Your task to perform on an android device: Open Youtube and go to the subscriptions tab Image 0: 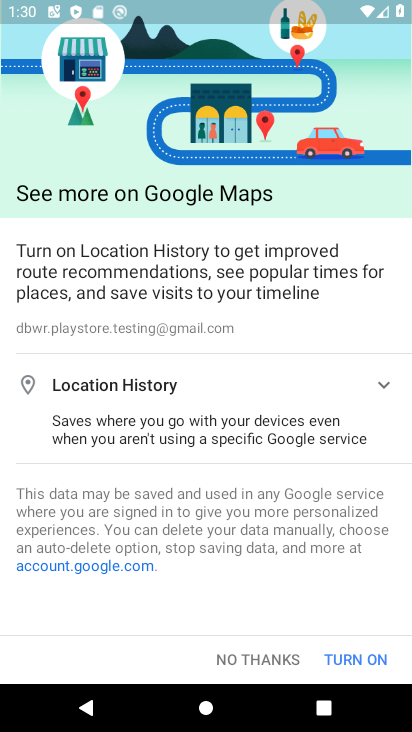
Step 0: press home button
Your task to perform on an android device: Open Youtube and go to the subscriptions tab Image 1: 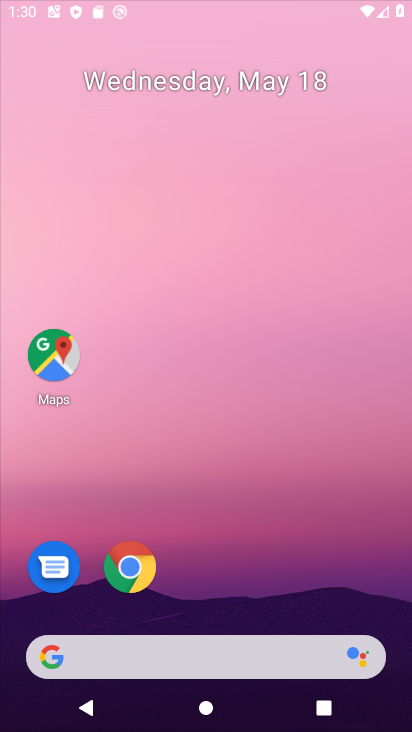
Step 1: click (312, 148)
Your task to perform on an android device: Open Youtube and go to the subscriptions tab Image 2: 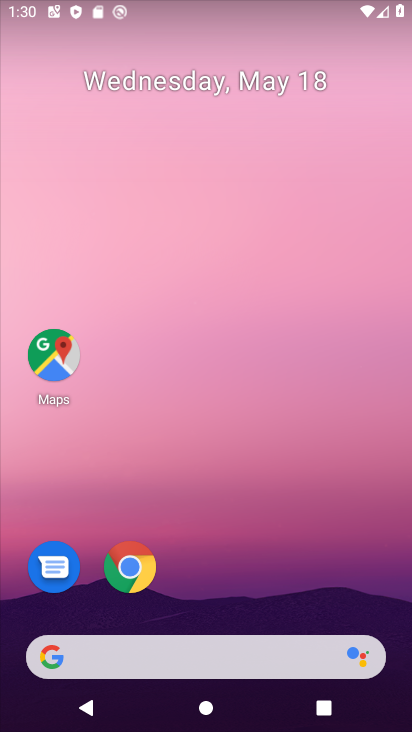
Step 2: drag from (273, 608) to (362, 161)
Your task to perform on an android device: Open Youtube and go to the subscriptions tab Image 3: 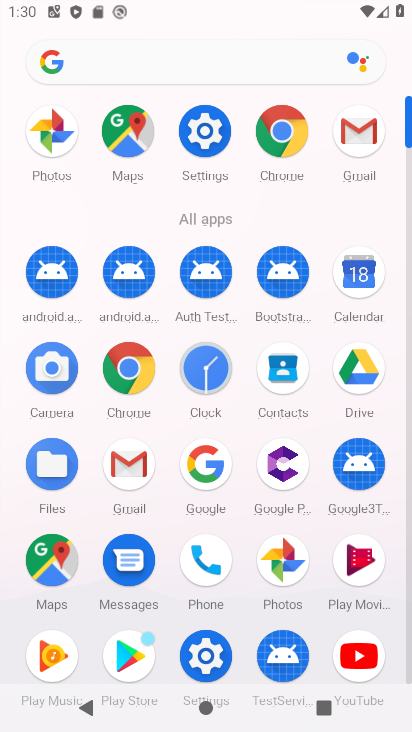
Step 3: click (366, 650)
Your task to perform on an android device: Open Youtube and go to the subscriptions tab Image 4: 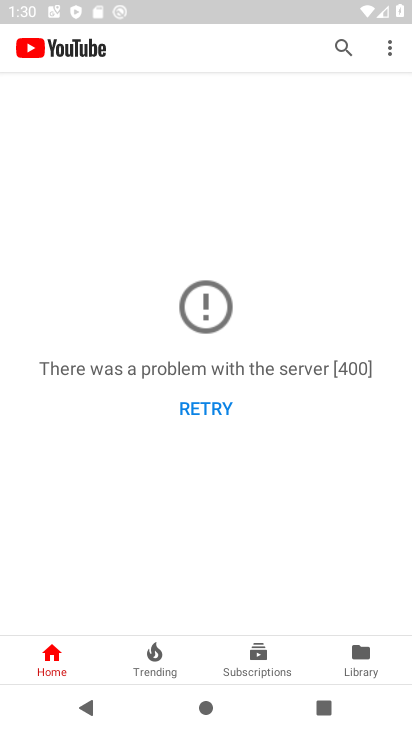
Step 4: click (257, 663)
Your task to perform on an android device: Open Youtube and go to the subscriptions tab Image 5: 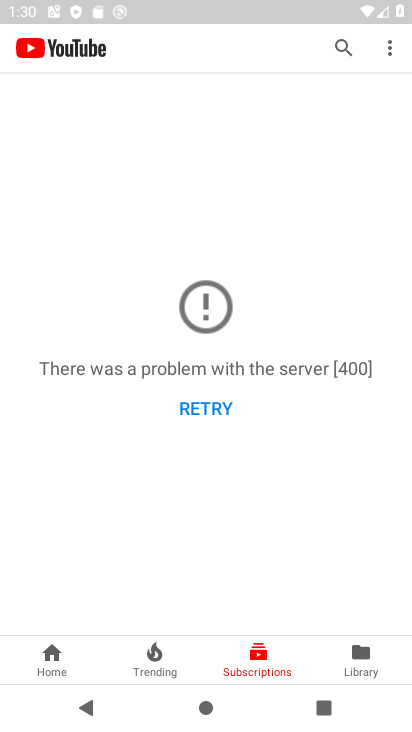
Step 5: task complete